Your task to perform on an android device: Open eBay Image 0: 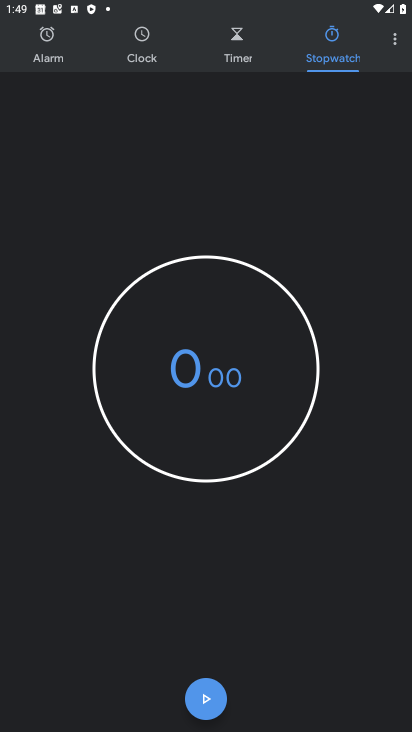
Step 0: press home button
Your task to perform on an android device: Open eBay Image 1: 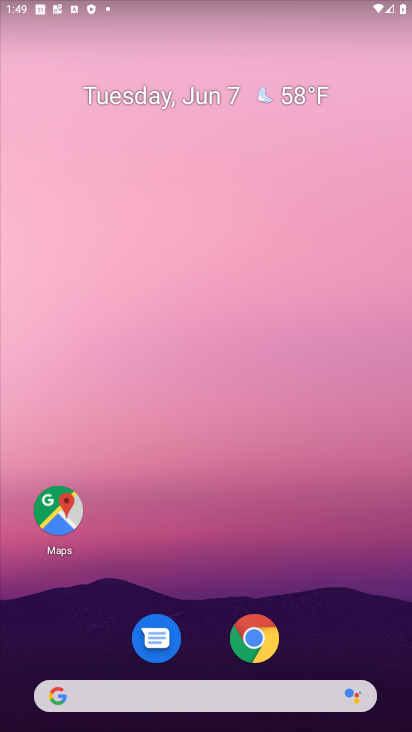
Step 1: drag from (209, 583) to (265, 268)
Your task to perform on an android device: Open eBay Image 2: 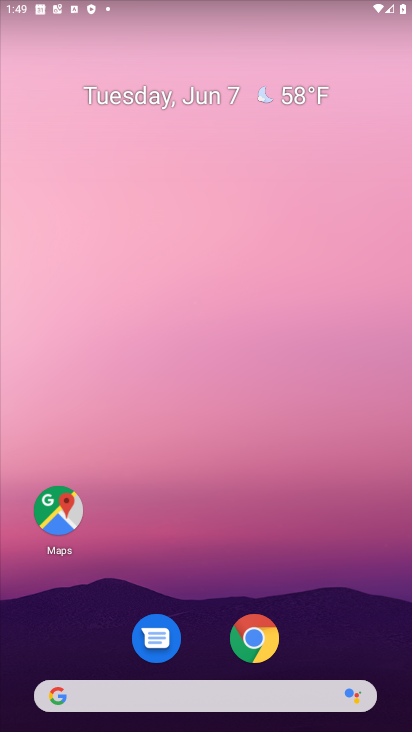
Step 2: drag from (213, 608) to (296, 231)
Your task to perform on an android device: Open eBay Image 3: 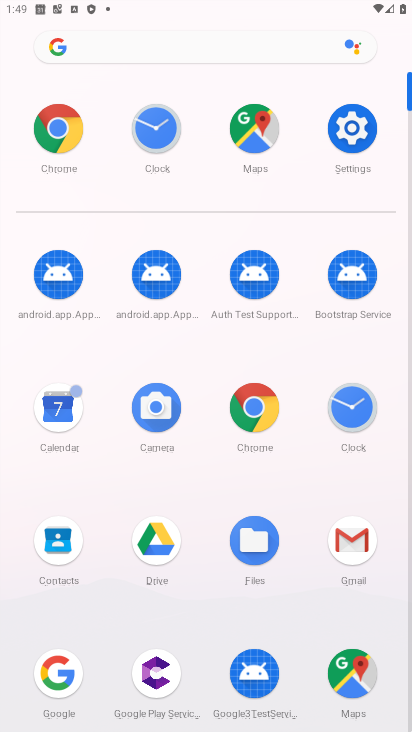
Step 3: click (53, 132)
Your task to perform on an android device: Open eBay Image 4: 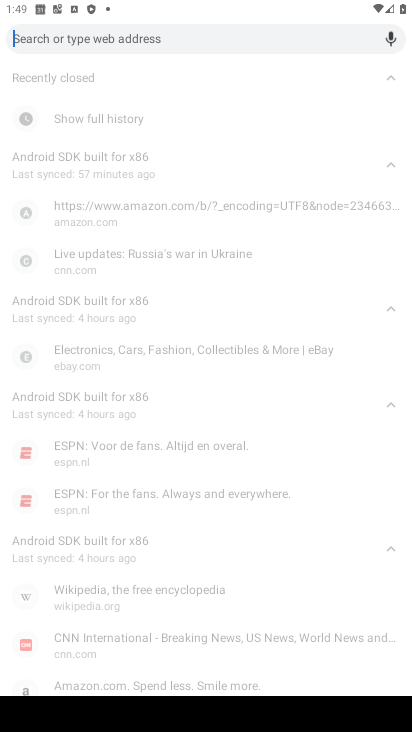
Step 4: type "eBay"
Your task to perform on an android device: Open eBay Image 5: 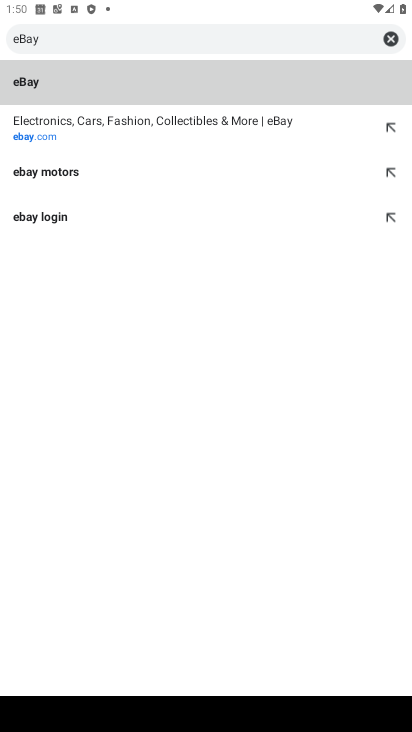
Step 5: click (126, 73)
Your task to perform on an android device: Open eBay Image 6: 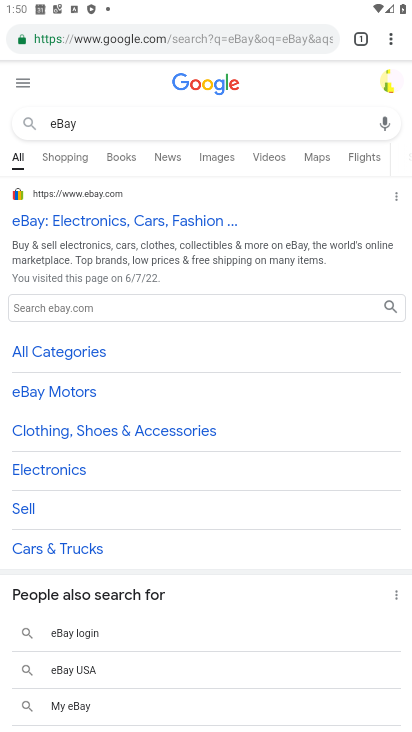
Step 6: task complete